Your task to perform on an android device: find snoozed emails in the gmail app Image 0: 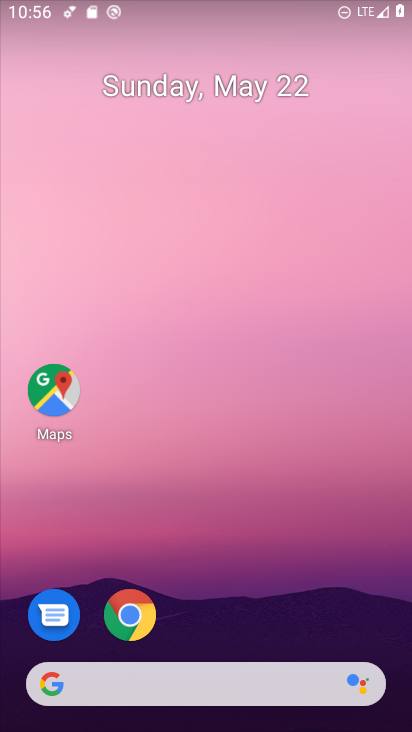
Step 0: drag from (280, 640) to (262, 157)
Your task to perform on an android device: find snoozed emails in the gmail app Image 1: 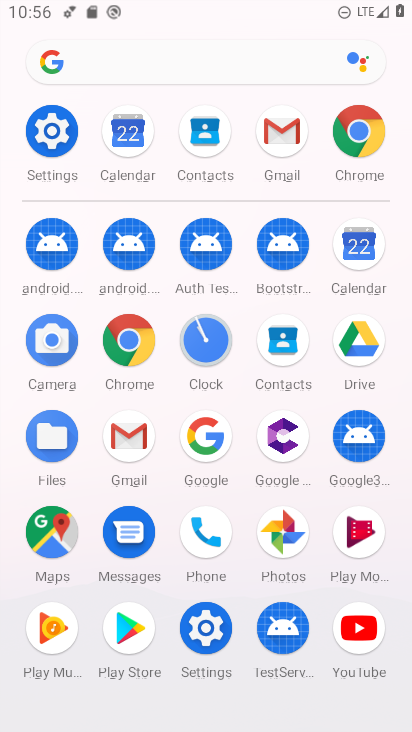
Step 1: click (270, 139)
Your task to perform on an android device: find snoozed emails in the gmail app Image 2: 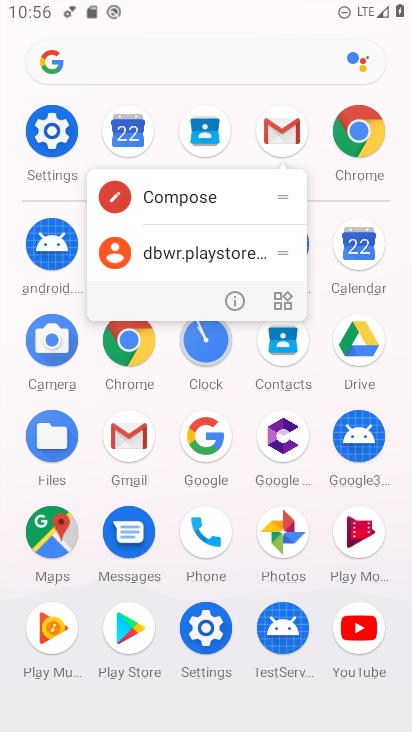
Step 2: click (278, 114)
Your task to perform on an android device: find snoozed emails in the gmail app Image 3: 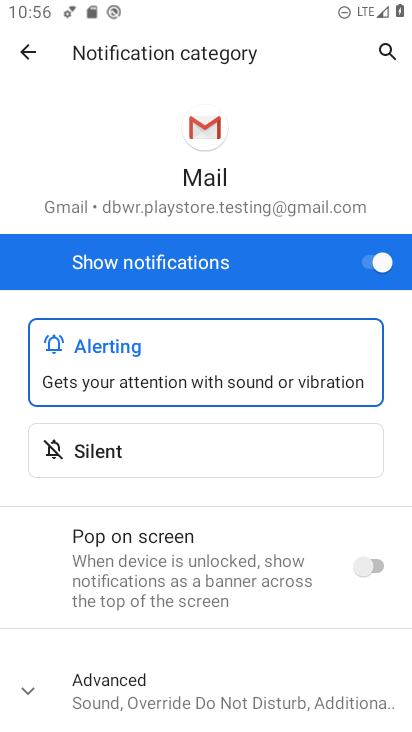
Step 3: click (17, 55)
Your task to perform on an android device: find snoozed emails in the gmail app Image 4: 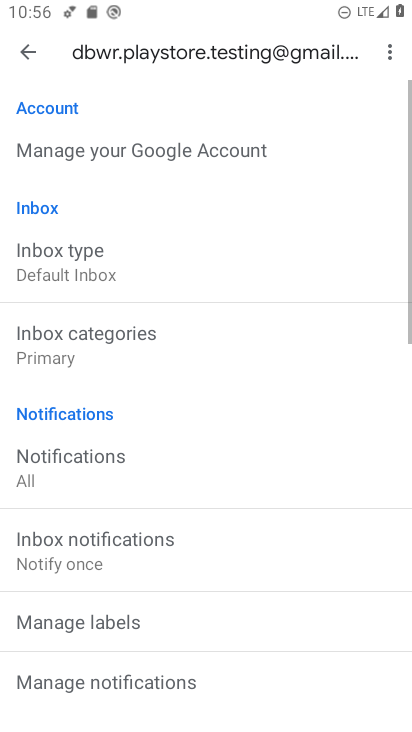
Step 4: click (17, 55)
Your task to perform on an android device: find snoozed emails in the gmail app Image 5: 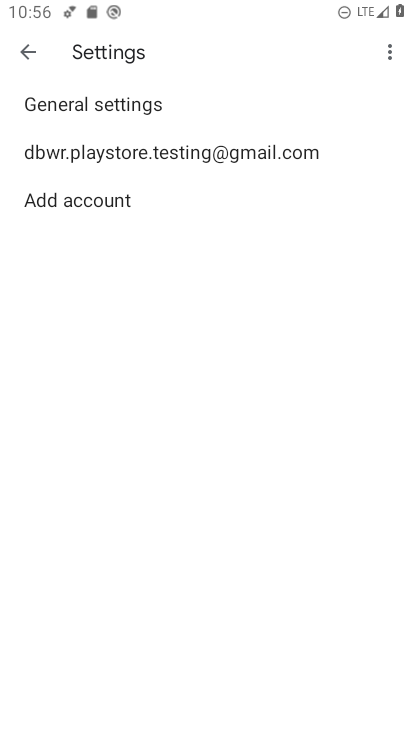
Step 5: click (18, 52)
Your task to perform on an android device: find snoozed emails in the gmail app Image 6: 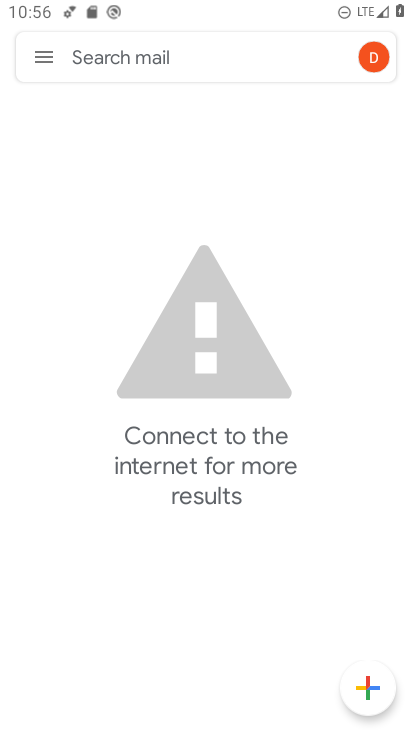
Step 6: click (38, 52)
Your task to perform on an android device: find snoozed emails in the gmail app Image 7: 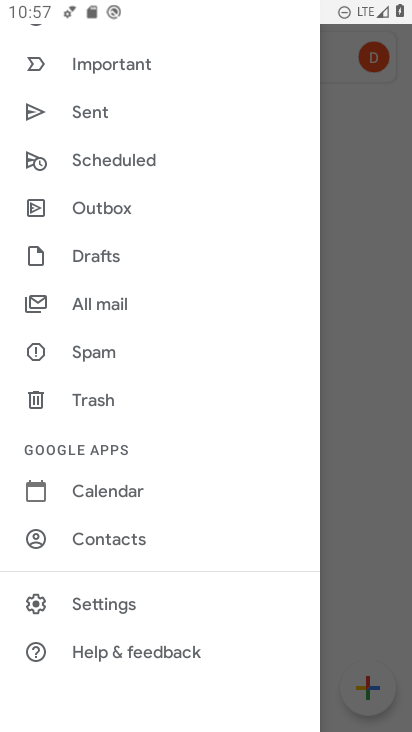
Step 7: drag from (71, 111) to (180, 555)
Your task to perform on an android device: find snoozed emails in the gmail app Image 8: 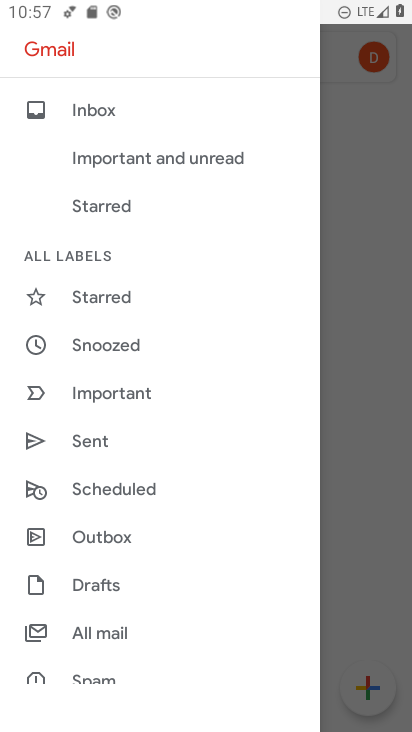
Step 8: click (112, 357)
Your task to perform on an android device: find snoozed emails in the gmail app Image 9: 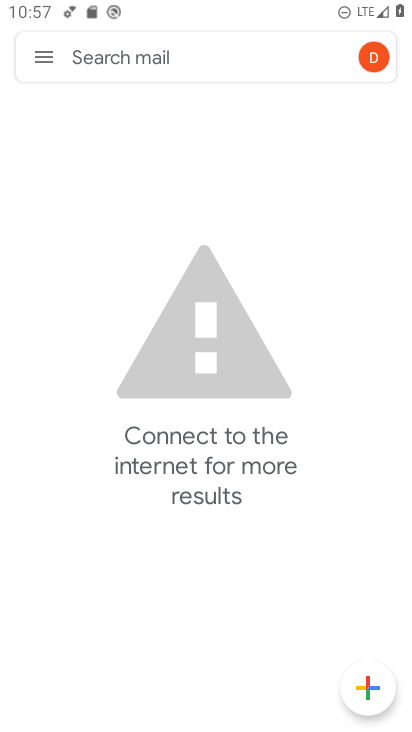
Step 9: task complete